Your task to perform on an android device: turn off translation in the chrome app Image 0: 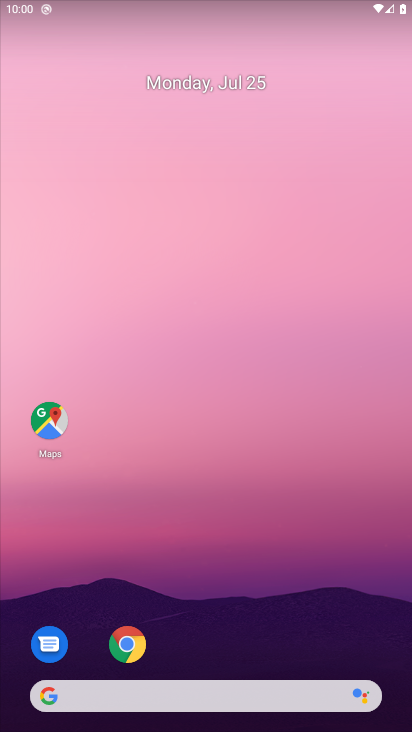
Step 0: drag from (327, 467) to (337, 49)
Your task to perform on an android device: turn off translation in the chrome app Image 1: 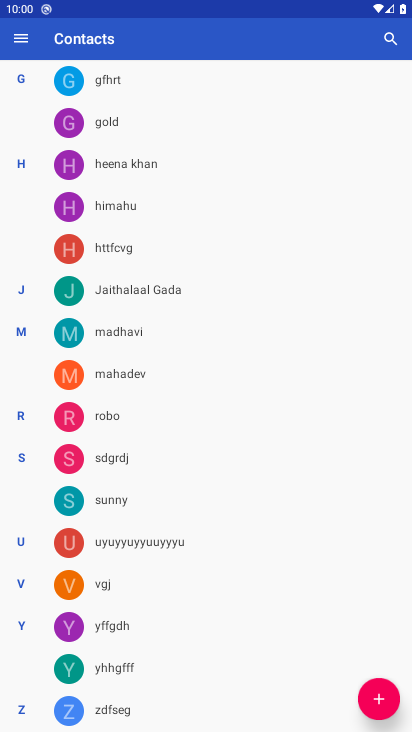
Step 1: press home button
Your task to perform on an android device: turn off translation in the chrome app Image 2: 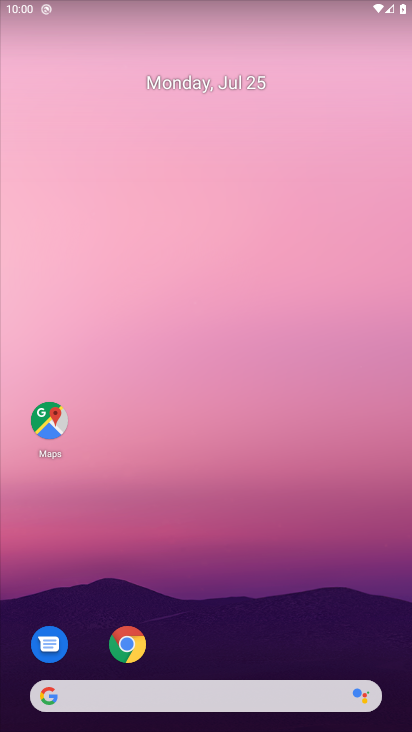
Step 2: drag from (275, 571) to (292, 57)
Your task to perform on an android device: turn off translation in the chrome app Image 3: 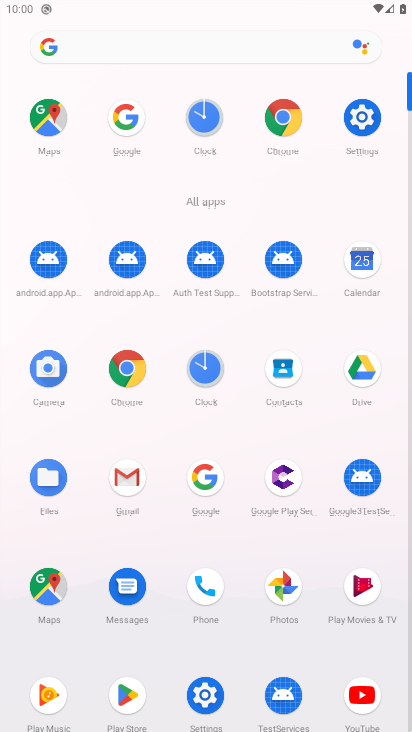
Step 3: click (120, 372)
Your task to perform on an android device: turn off translation in the chrome app Image 4: 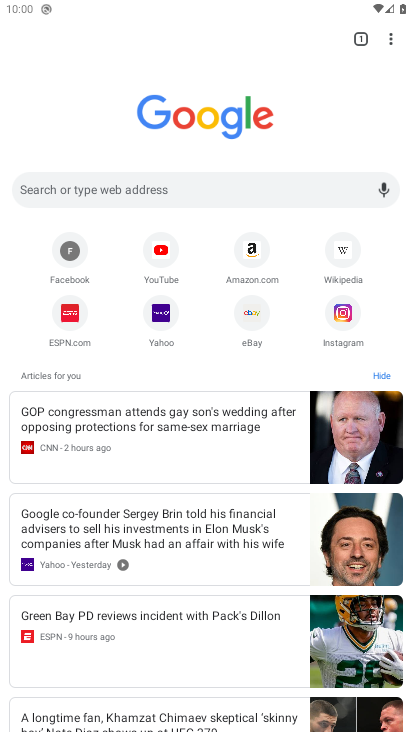
Step 4: drag from (389, 38) to (282, 323)
Your task to perform on an android device: turn off translation in the chrome app Image 5: 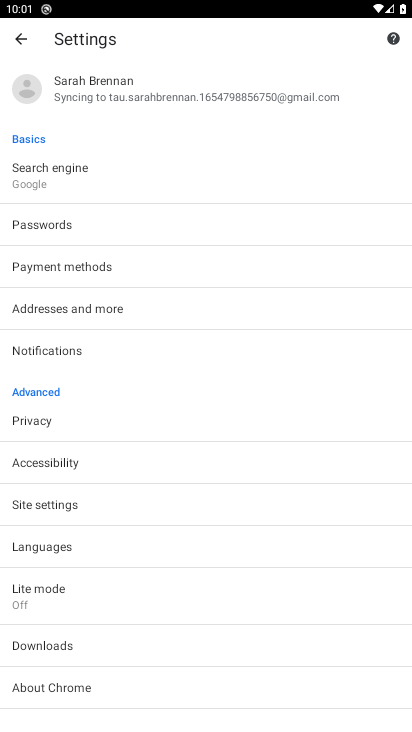
Step 5: drag from (250, 661) to (254, 363)
Your task to perform on an android device: turn off translation in the chrome app Image 6: 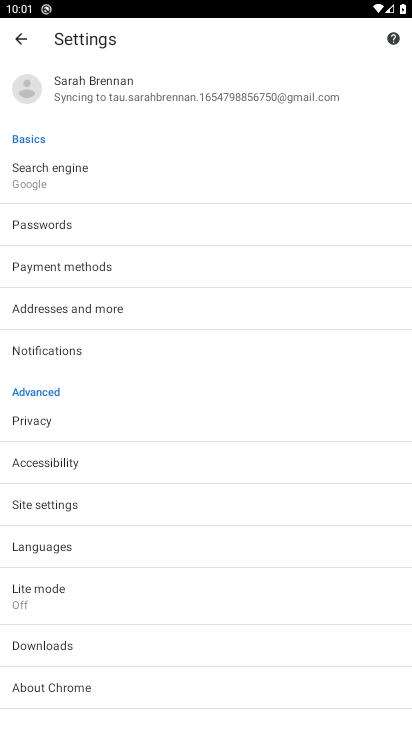
Step 6: click (65, 537)
Your task to perform on an android device: turn off translation in the chrome app Image 7: 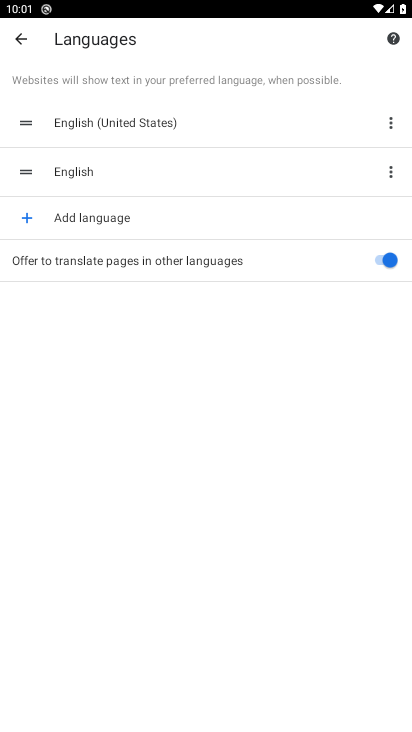
Step 7: click (339, 263)
Your task to perform on an android device: turn off translation in the chrome app Image 8: 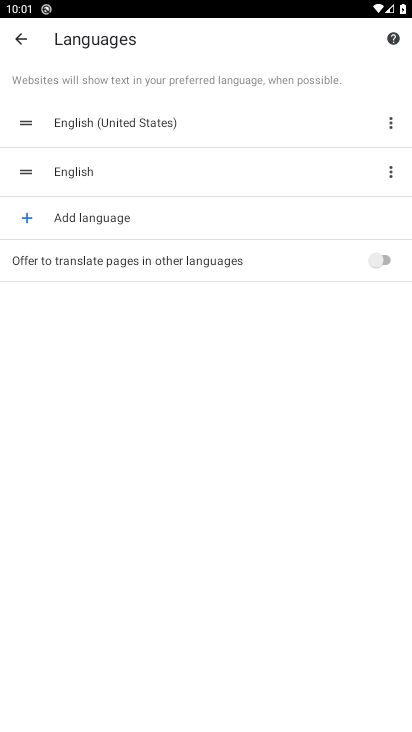
Step 8: task complete